Your task to perform on an android device: open app "Yahoo Mail" (install if not already installed) and enter user name: "lawsuit@inbox.com" and password: "pooch" Image 0: 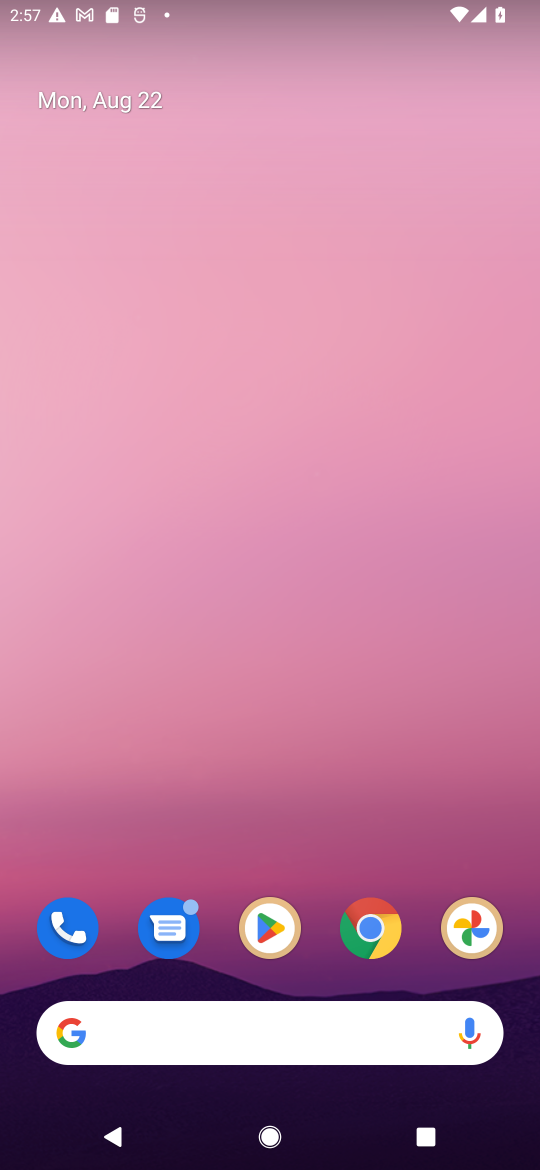
Step 0: click (276, 912)
Your task to perform on an android device: open app "Yahoo Mail" (install if not already installed) and enter user name: "lawsuit@inbox.com" and password: "pooch" Image 1: 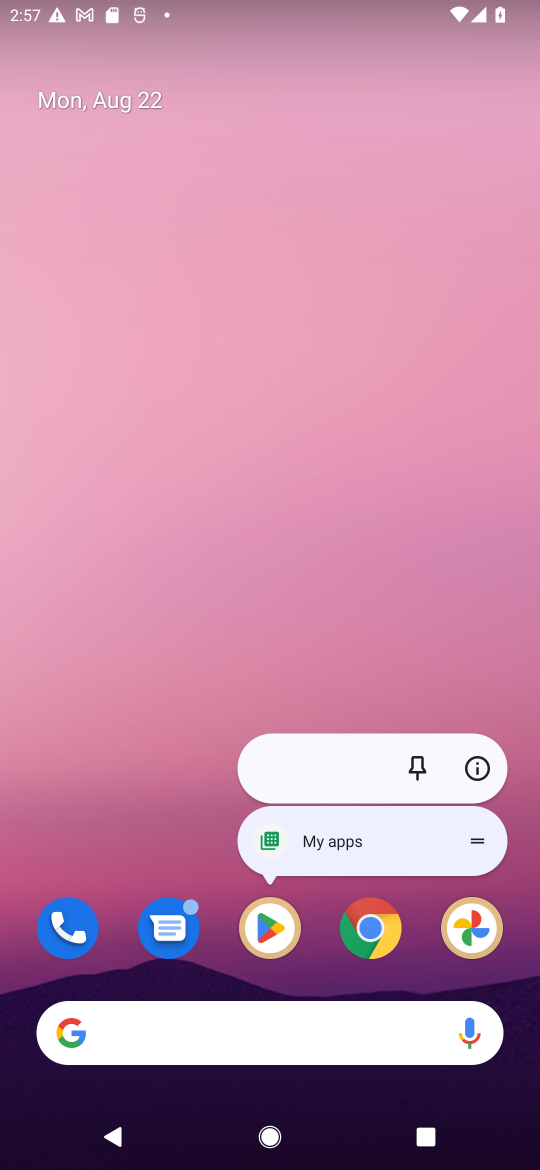
Step 1: click (276, 912)
Your task to perform on an android device: open app "Yahoo Mail" (install if not already installed) and enter user name: "lawsuit@inbox.com" and password: "pooch" Image 2: 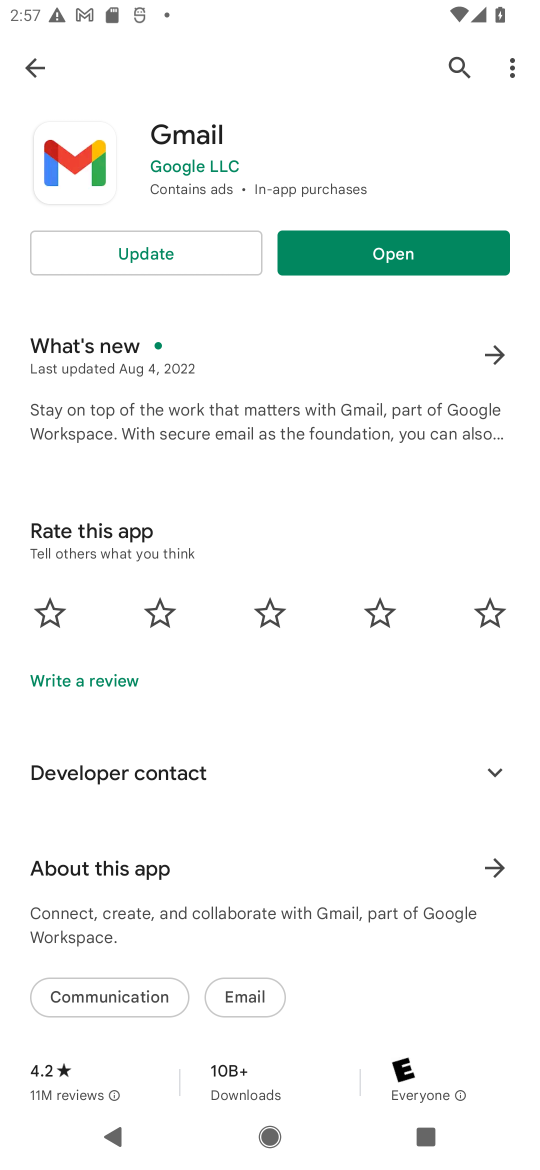
Step 2: click (39, 66)
Your task to perform on an android device: open app "Yahoo Mail" (install if not already installed) and enter user name: "lawsuit@inbox.com" and password: "pooch" Image 3: 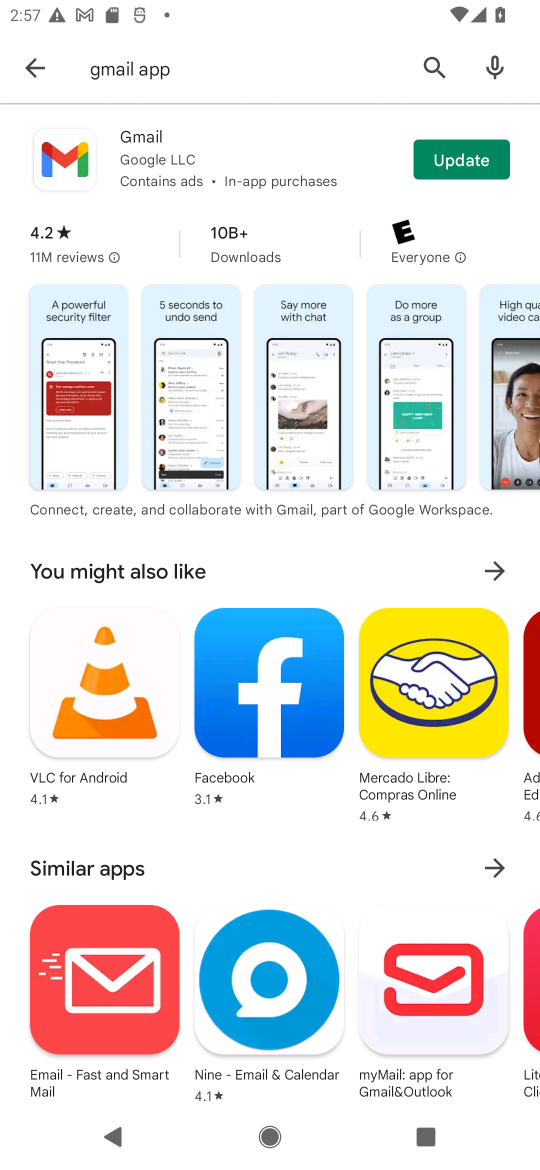
Step 3: click (188, 76)
Your task to perform on an android device: open app "Yahoo Mail" (install if not already installed) and enter user name: "lawsuit@inbox.com" and password: "pooch" Image 4: 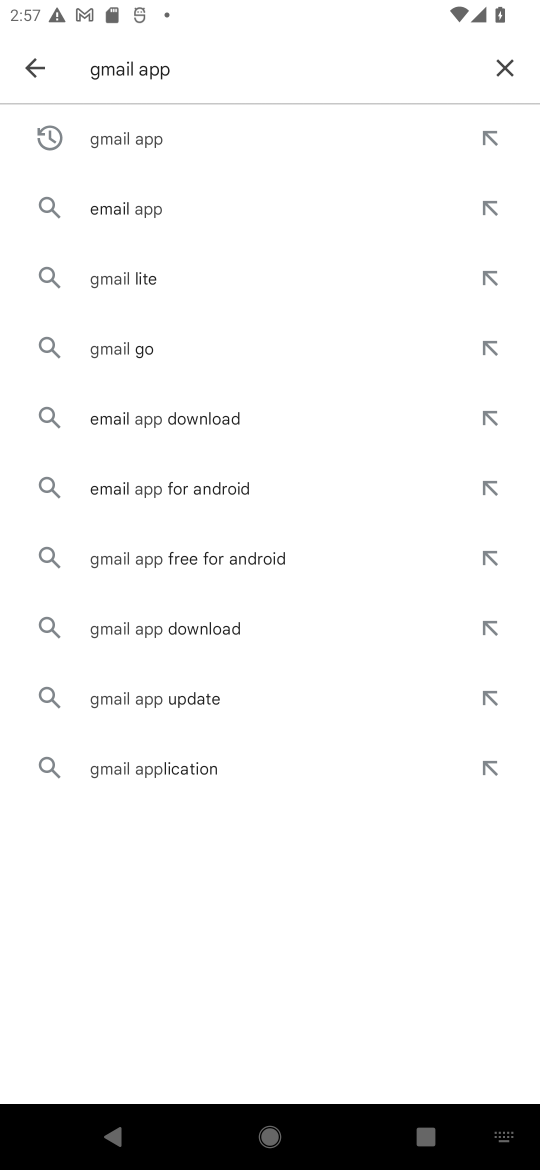
Step 4: click (504, 75)
Your task to perform on an android device: open app "Yahoo Mail" (install if not already installed) and enter user name: "lawsuit@inbox.com" and password: "pooch" Image 5: 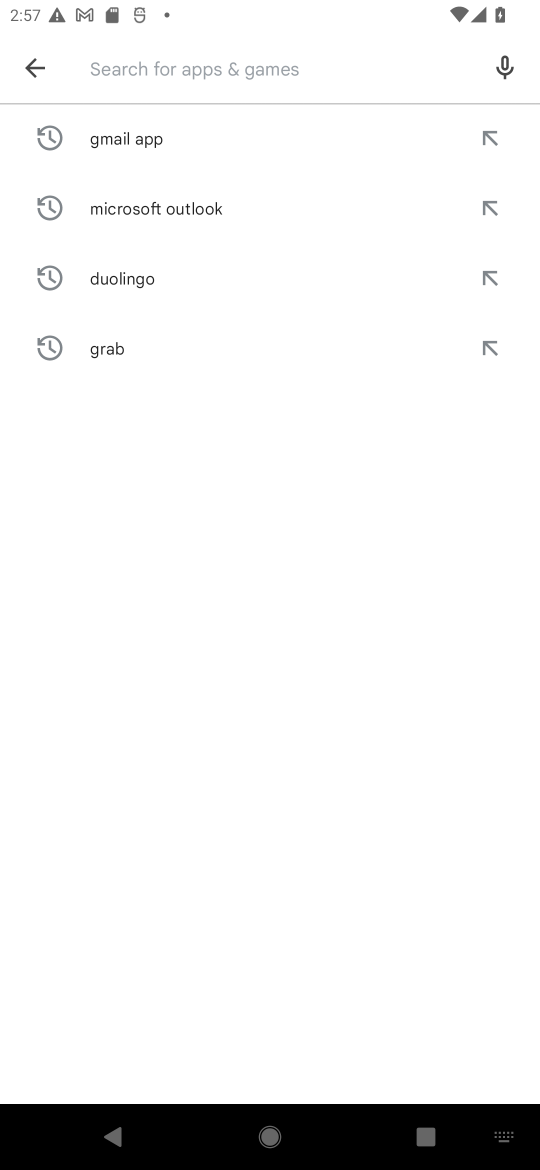
Step 5: type "Yahoo Mail"
Your task to perform on an android device: open app "Yahoo Mail" (install if not already installed) and enter user name: "lawsuit@inbox.com" and password: "pooch" Image 6: 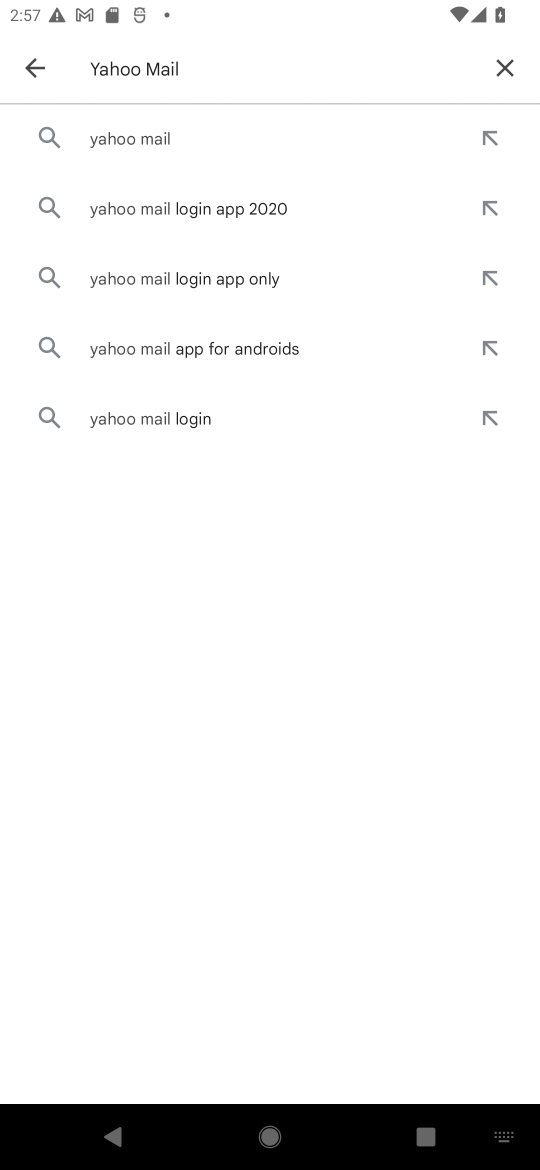
Step 6: click (151, 143)
Your task to perform on an android device: open app "Yahoo Mail" (install if not already installed) and enter user name: "lawsuit@inbox.com" and password: "pooch" Image 7: 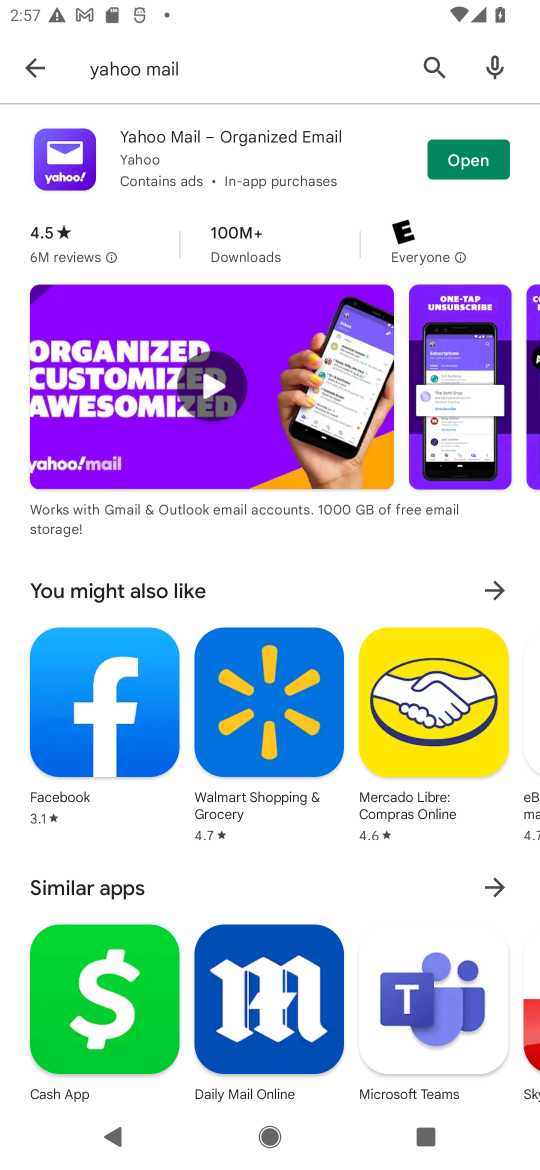
Step 7: click (478, 172)
Your task to perform on an android device: open app "Yahoo Mail" (install if not already installed) and enter user name: "lawsuit@inbox.com" and password: "pooch" Image 8: 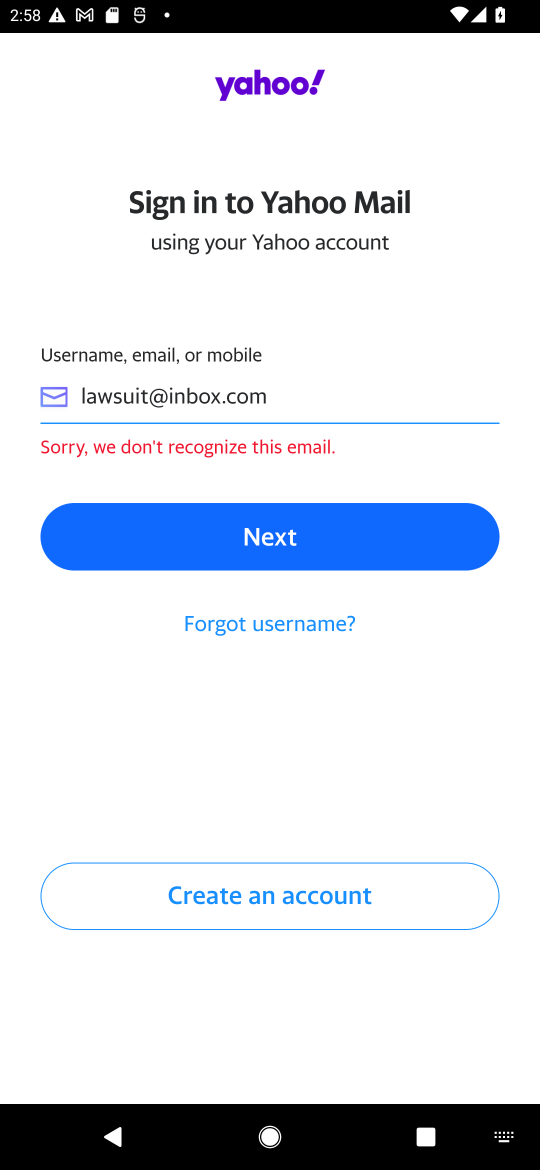
Step 8: click (316, 534)
Your task to perform on an android device: open app "Yahoo Mail" (install if not already installed) and enter user name: "lawsuit@inbox.com" and password: "pooch" Image 9: 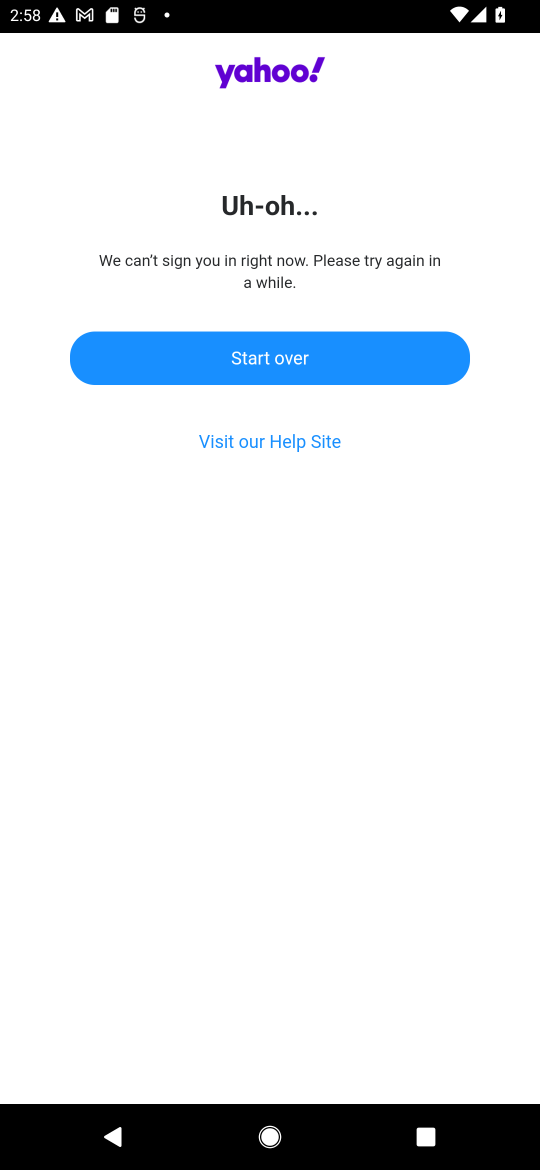
Step 9: click (53, 395)
Your task to perform on an android device: open app "Yahoo Mail" (install if not already installed) and enter user name: "lawsuit@inbox.com" and password: "pooch" Image 10: 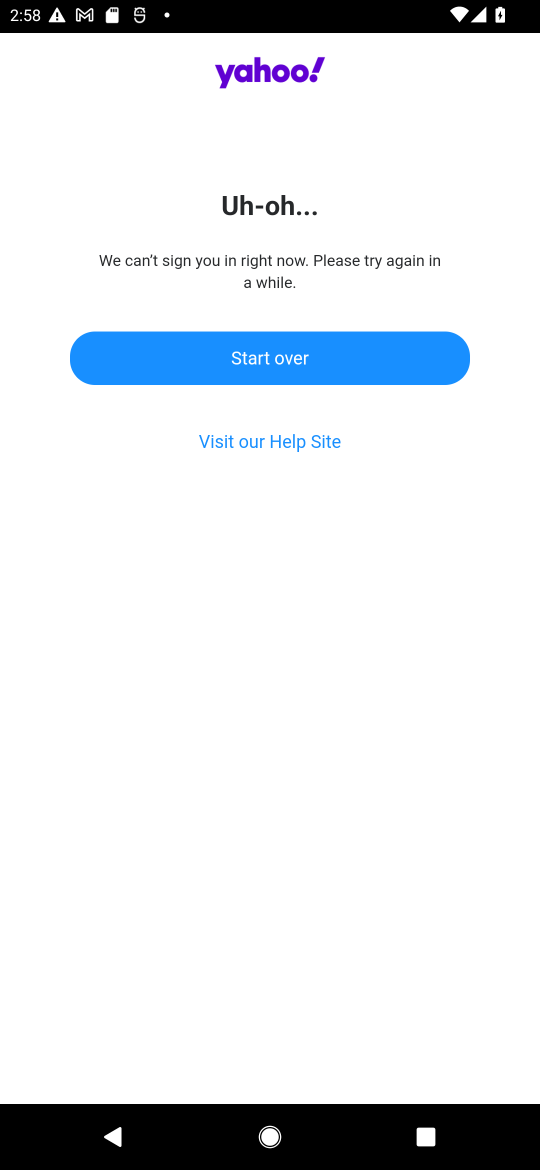
Step 10: click (388, 356)
Your task to perform on an android device: open app "Yahoo Mail" (install if not already installed) and enter user name: "lawsuit@inbox.com" and password: "pooch" Image 11: 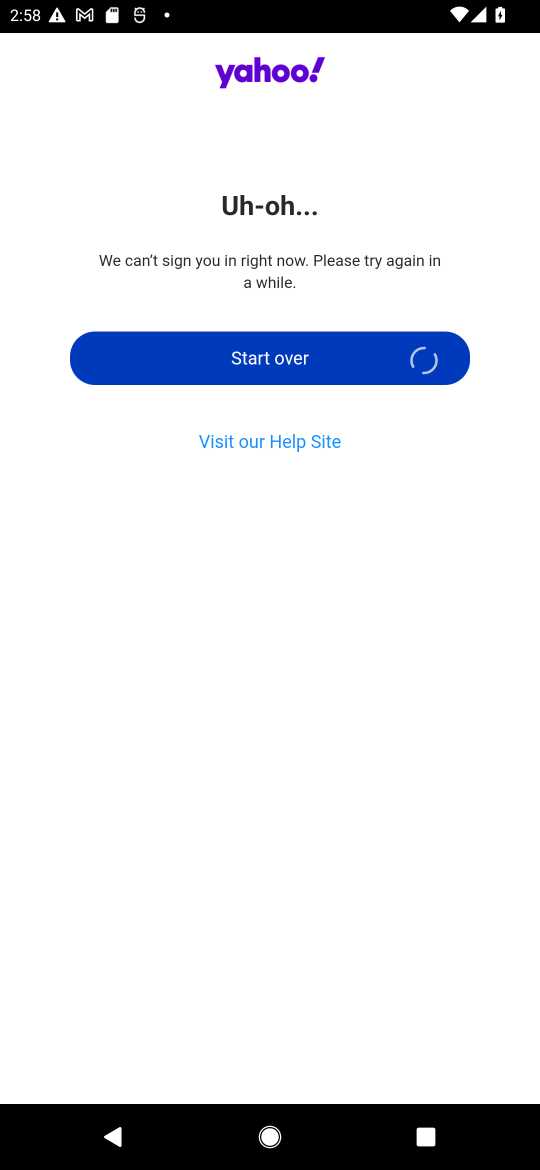
Step 11: task complete